Your task to perform on an android device: snooze an email in the gmail app Image 0: 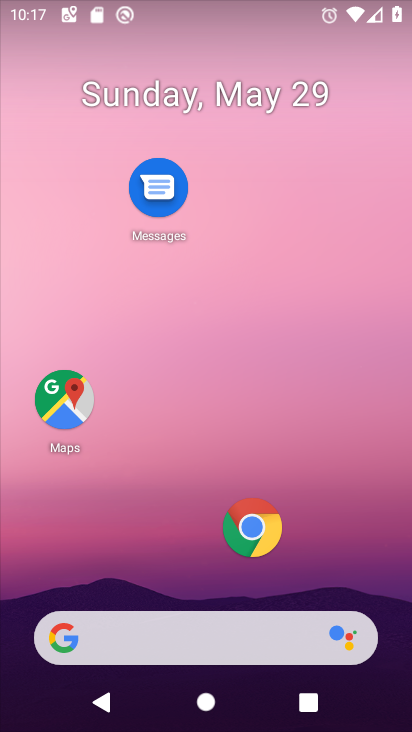
Step 0: drag from (198, 572) to (1, 345)
Your task to perform on an android device: snooze an email in the gmail app Image 1: 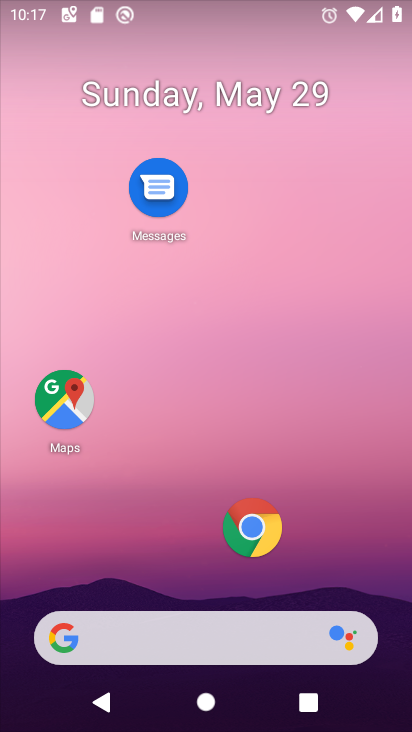
Step 1: click (347, 502)
Your task to perform on an android device: snooze an email in the gmail app Image 2: 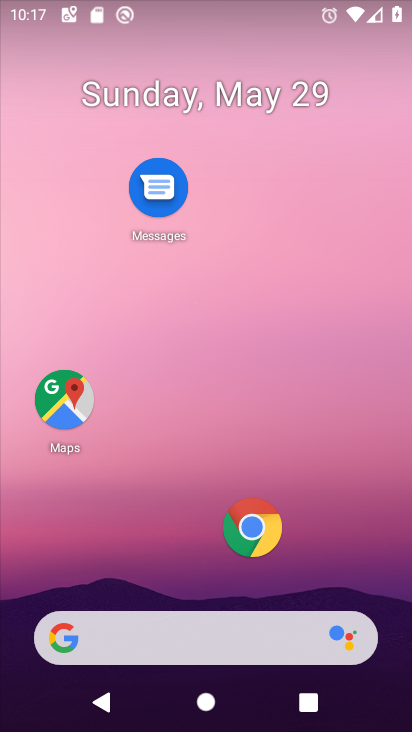
Step 2: drag from (293, 181) to (293, 46)
Your task to perform on an android device: snooze an email in the gmail app Image 3: 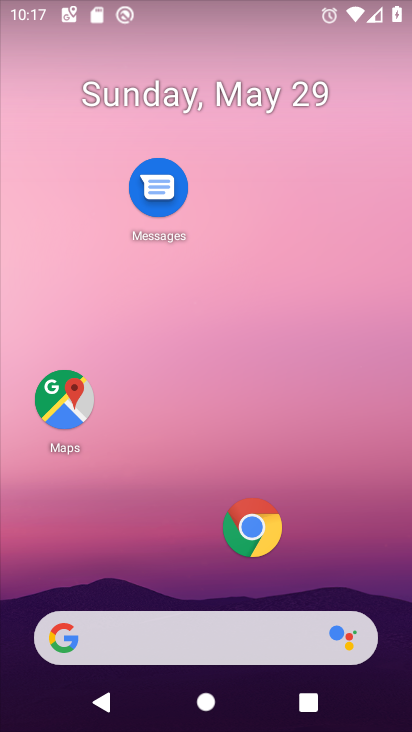
Step 3: drag from (311, 571) to (326, 0)
Your task to perform on an android device: snooze an email in the gmail app Image 4: 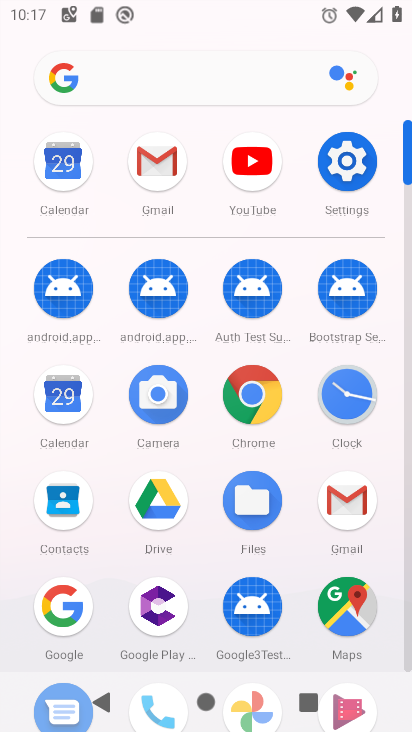
Step 4: click (345, 493)
Your task to perform on an android device: snooze an email in the gmail app Image 5: 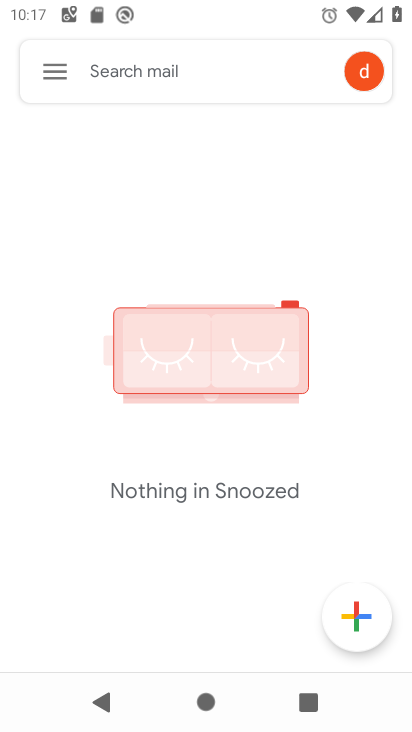
Step 5: click (46, 60)
Your task to perform on an android device: snooze an email in the gmail app Image 6: 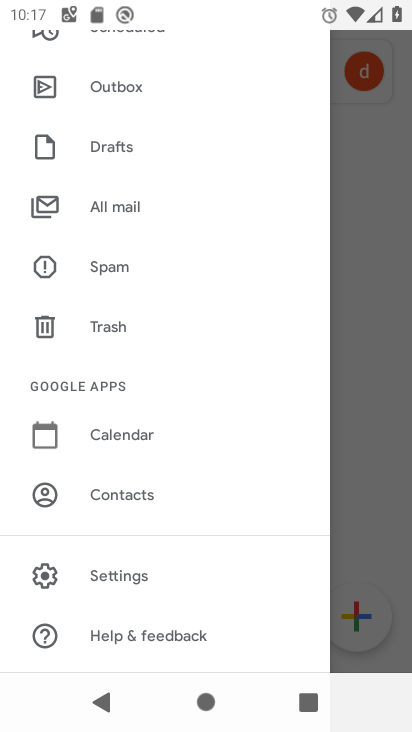
Step 6: click (151, 205)
Your task to perform on an android device: snooze an email in the gmail app Image 7: 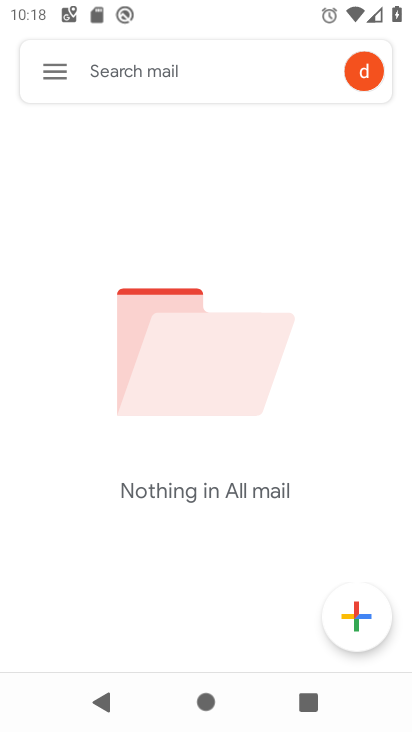
Step 7: task complete